Your task to perform on an android device: Open Android settings Image 0: 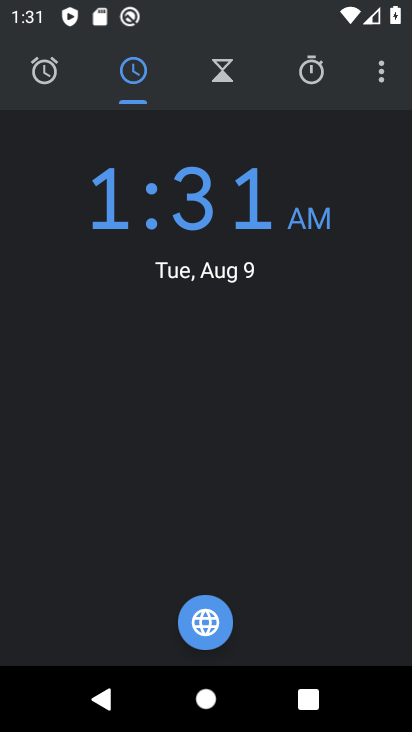
Step 0: press back button
Your task to perform on an android device: Open Android settings Image 1: 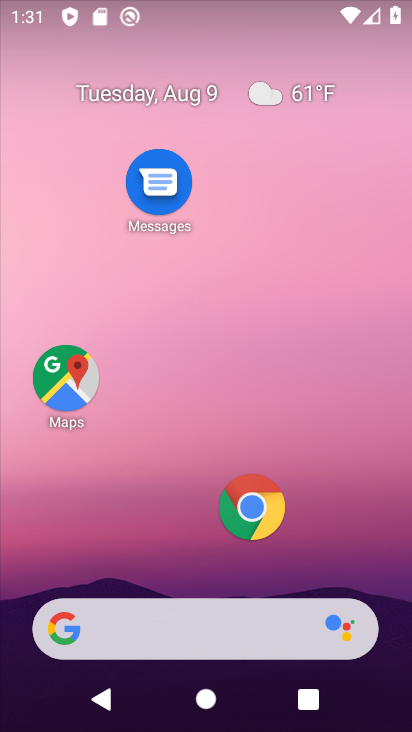
Step 1: drag from (129, 541) to (299, 1)
Your task to perform on an android device: Open Android settings Image 2: 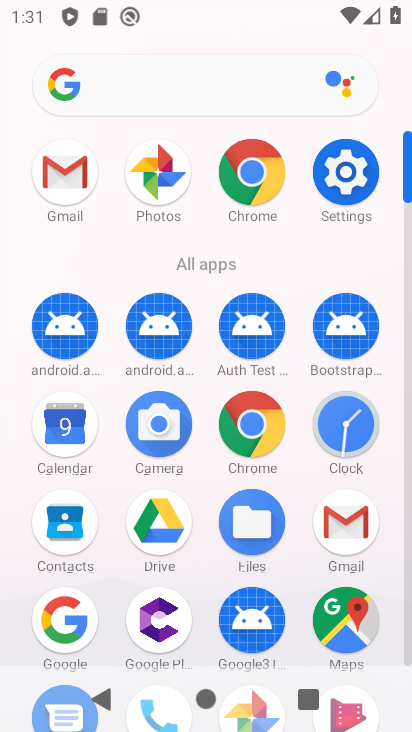
Step 2: click (347, 172)
Your task to perform on an android device: Open Android settings Image 3: 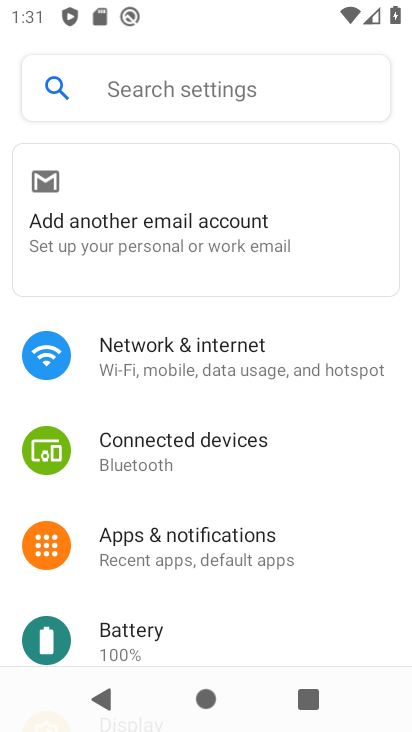
Step 3: drag from (175, 671) to (262, 148)
Your task to perform on an android device: Open Android settings Image 4: 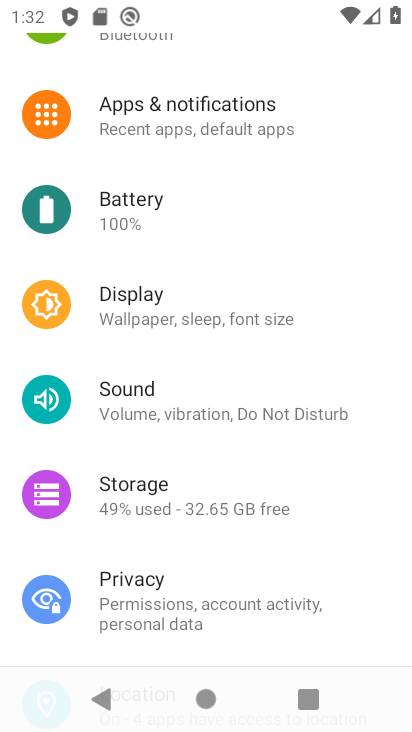
Step 4: drag from (166, 588) to (245, 61)
Your task to perform on an android device: Open Android settings Image 5: 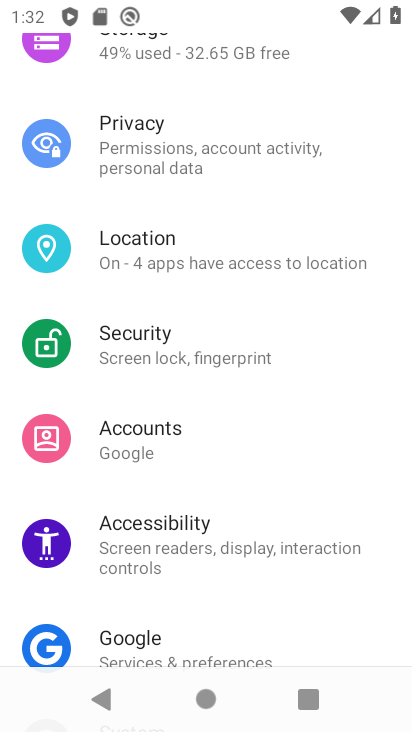
Step 5: drag from (165, 608) to (247, 60)
Your task to perform on an android device: Open Android settings Image 6: 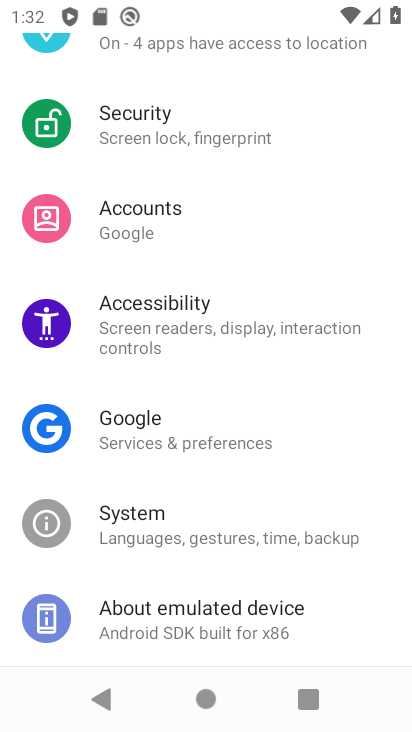
Step 6: click (159, 606)
Your task to perform on an android device: Open Android settings Image 7: 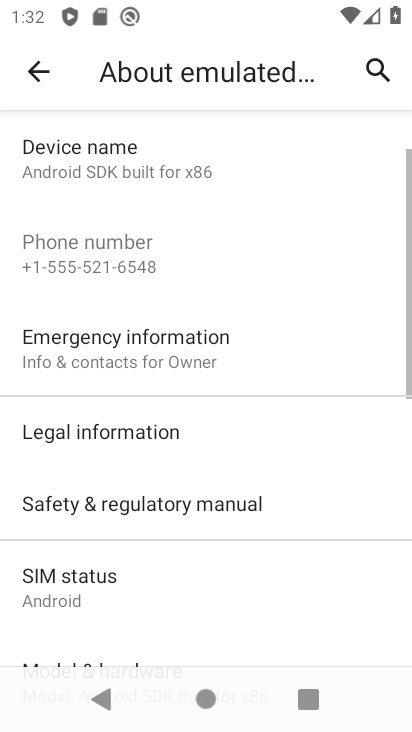
Step 7: task complete